Your task to perform on an android device: open a bookmark in the chrome app Image 0: 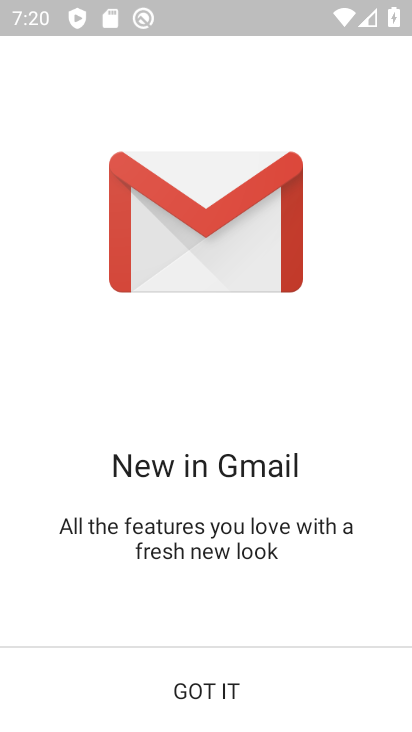
Step 0: press home button
Your task to perform on an android device: open a bookmark in the chrome app Image 1: 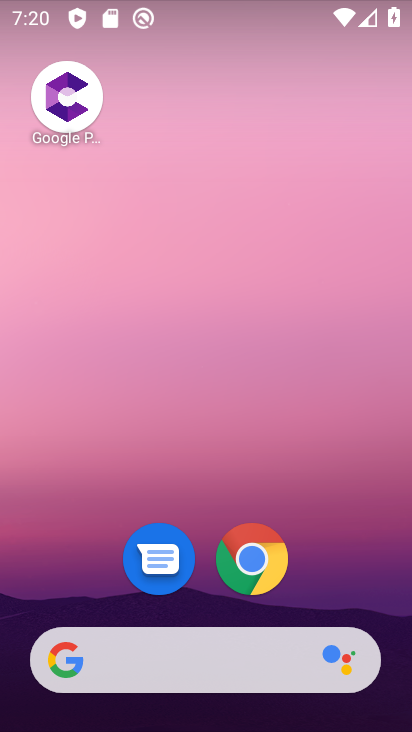
Step 1: click (226, 550)
Your task to perform on an android device: open a bookmark in the chrome app Image 2: 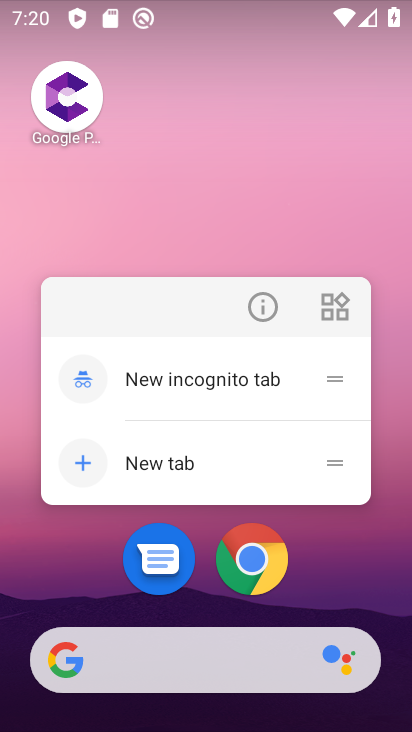
Step 2: click (264, 578)
Your task to perform on an android device: open a bookmark in the chrome app Image 3: 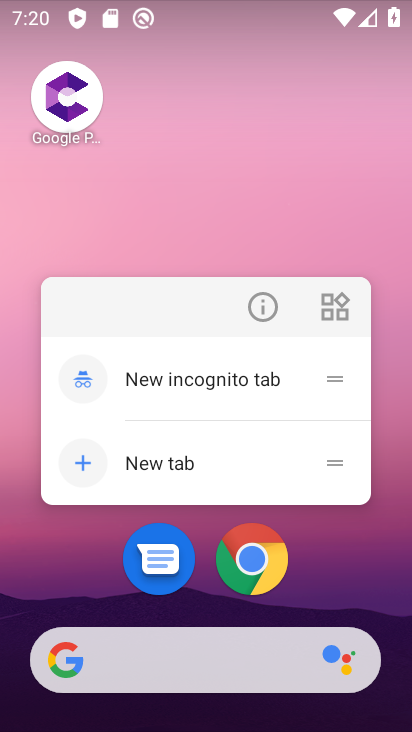
Step 3: click (252, 565)
Your task to perform on an android device: open a bookmark in the chrome app Image 4: 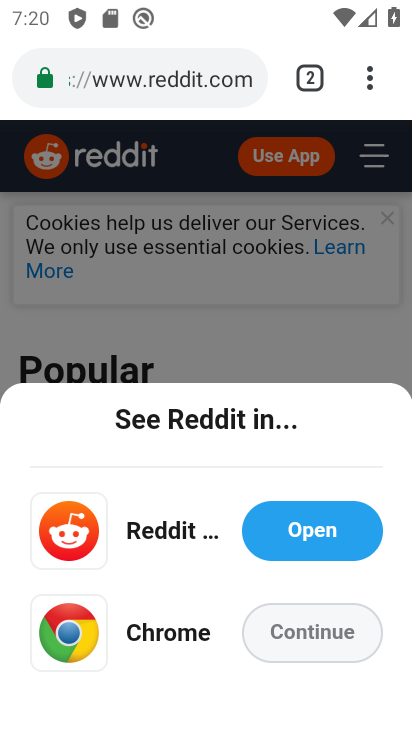
Step 4: task complete